Your task to perform on an android device: Open wifi settings Image 0: 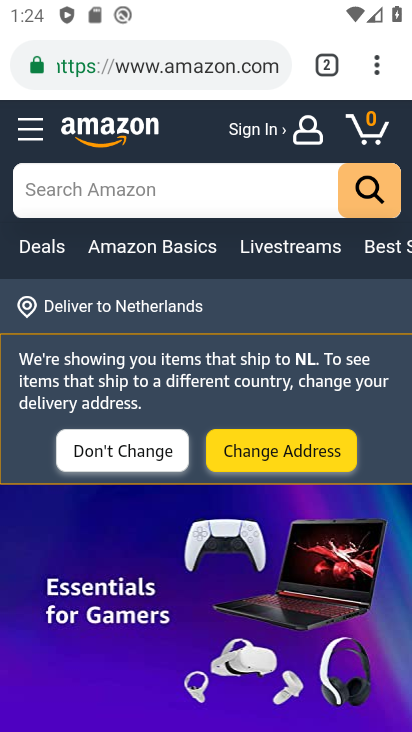
Step 0: press back button
Your task to perform on an android device: Open wifi settings Image 1: 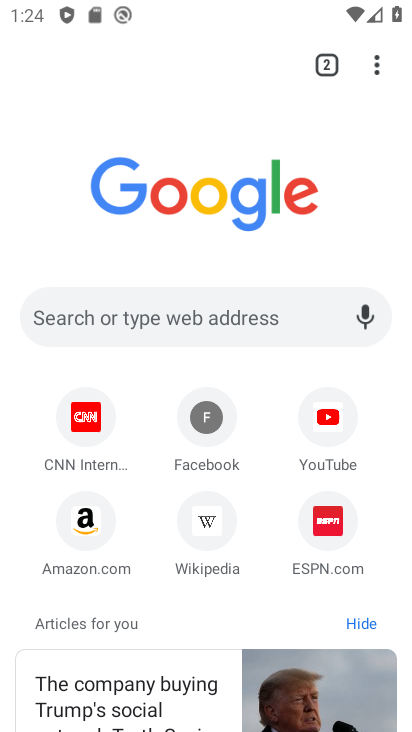
Step 1: drag from (73, 13) to (109, 478)
Your task to perform on an android device: Open wifi settings Image 2: 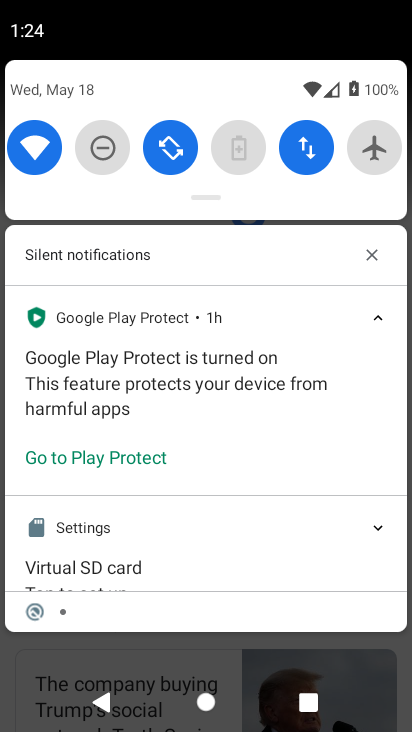
Step 2: click (43, 143)
Your task to perform on an android device: Open wifi settings Image 3: 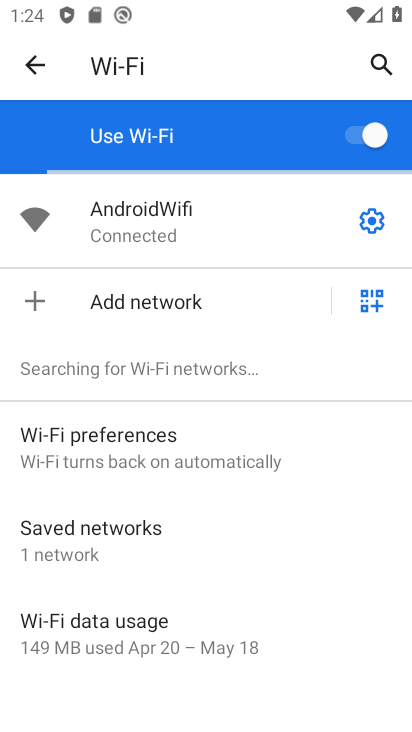
Step 3: task complete